Your task to perform on an android device: change notifications settings Image 0: 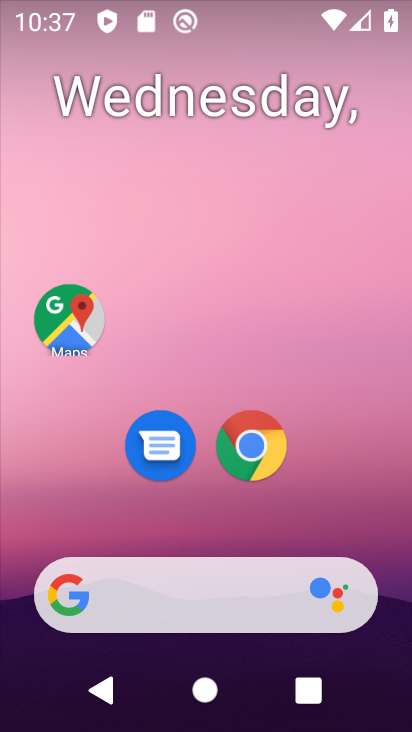
Step 0: drag from (181, 472) to (270, 0)
Your task to perform on an android device: change notifications settings Image 1: 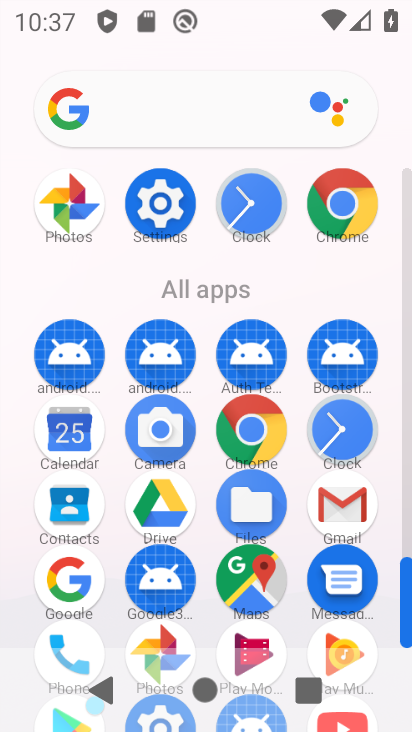
Step 1: click (177, 202)
Your task to perform on an android device: change notifications settings Image 2: 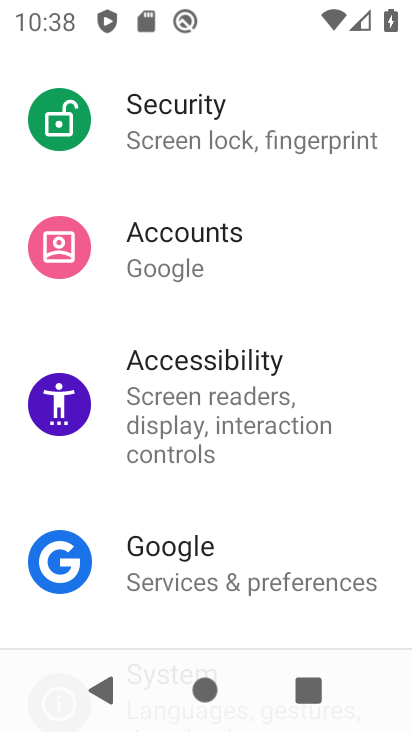
Step 2: drag from (206, 539) to (311, 124)
Your task to perform on an android device: change notifications settings Image 3: 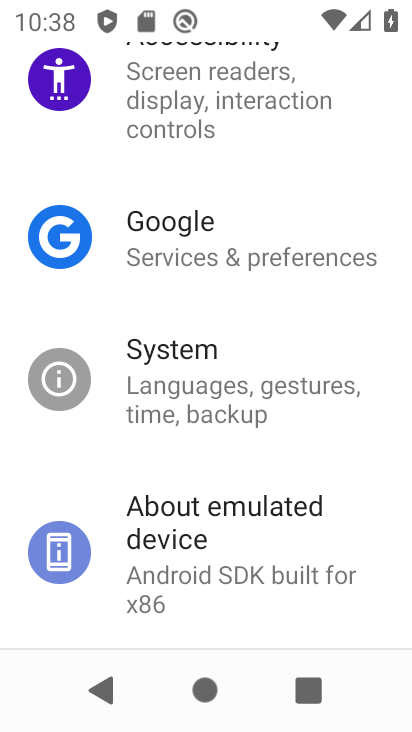
Step 3: drag from (276, 262) to (212, 723)
Your task to perform on an android device: change notifications settings Image 4: 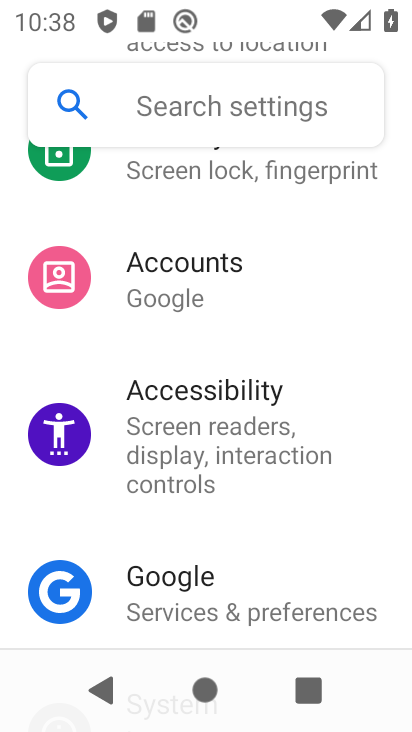
Step 4: drag from (211, 272) to (199, 710)
Your task to perform on an android device: change notifications settings Image 5: 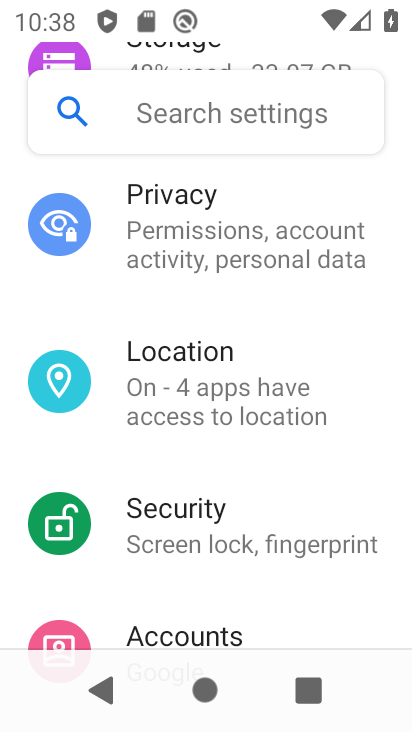
Step 5: drag from (254, 218) to (213, 725)
Your task to perform on an android device: change notifications settings Image 6: 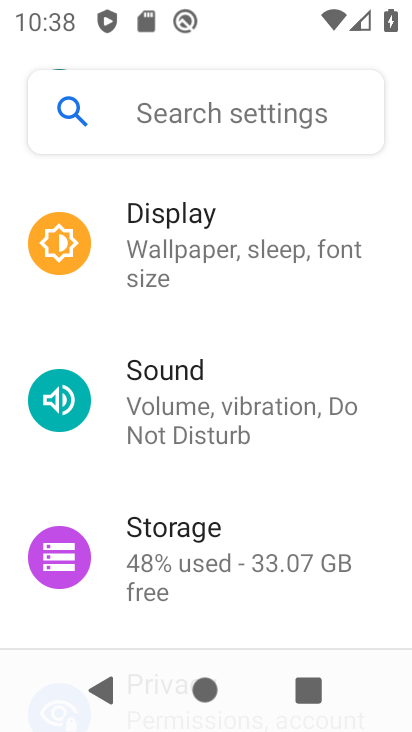
Step 6: drag from (252, 248) to (191, 724)
Your task to perform on an android device: change notifications settings Image 7: 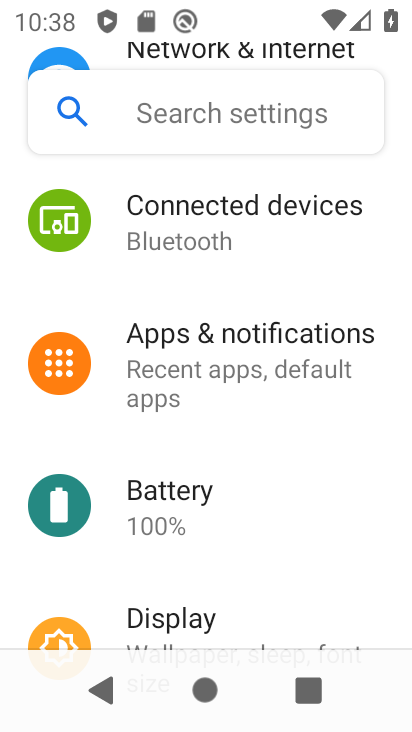
Step 7: click (256, 348)
Your task to perform on an android device: change notifications settings Image 8: 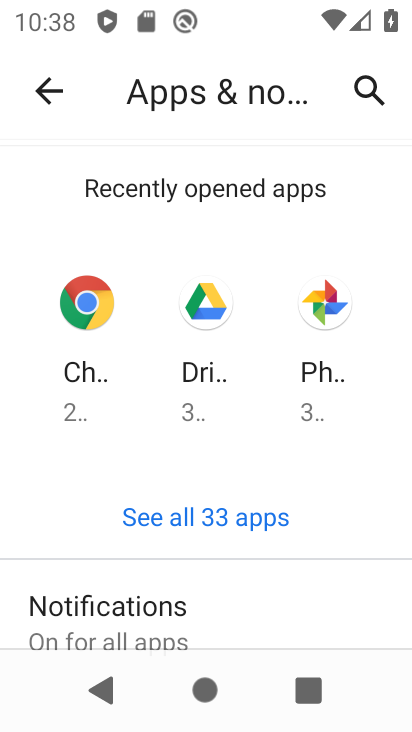
Step 8: click (181, 609)
Your task to perform on an android device: change notifications settings Image 9: 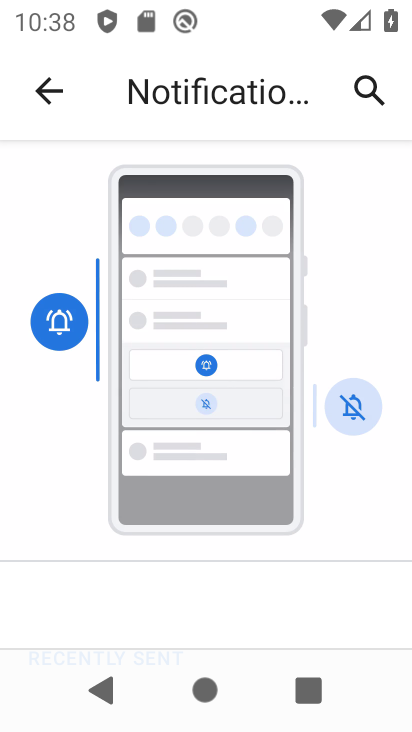
Step 9: click (64, 86)
Your task to perform on an android device: change notifications settings Image 10: 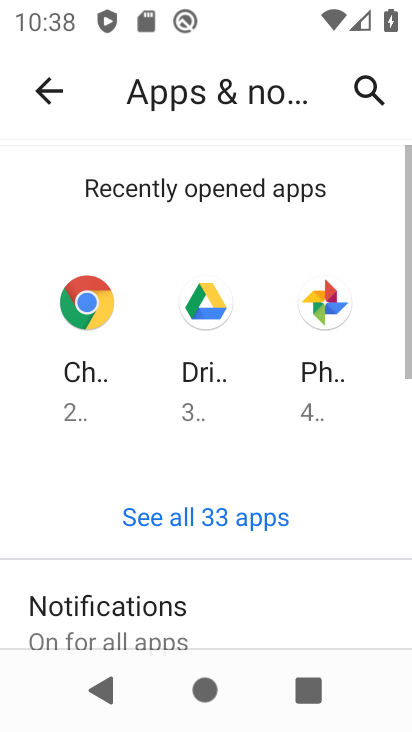
Step 10: click (89, 625)
Your task to perform on an android device: change notifications settings Image 11: 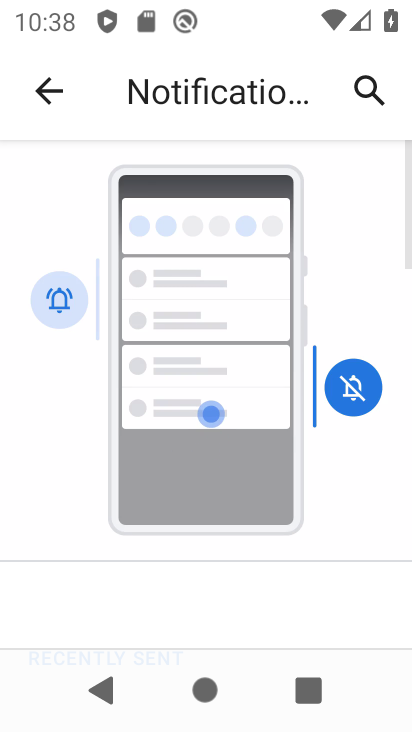
Step 11: drag from (162, 586) to (300, 17)
Your task to perform on an android device: change notifications settings Image 12: 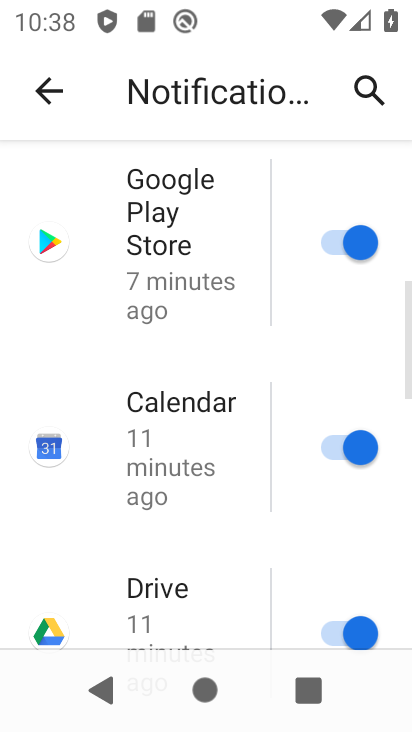
Step 12: drag from (237, 532) to (243, 73)
Your task to perform on an android device: change notifications settings Image 13: 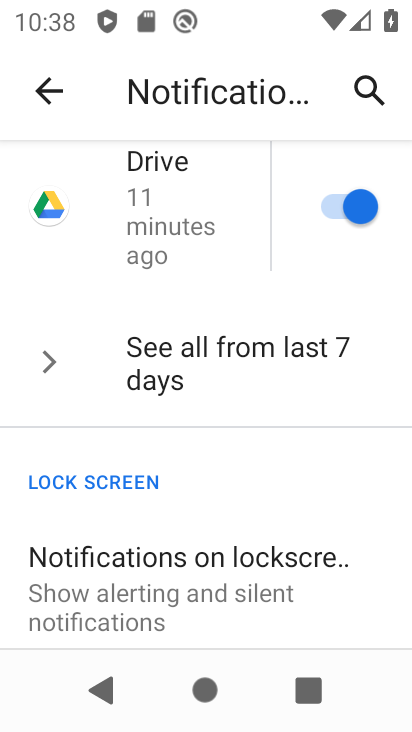
Step 13: drag from (257, 582) to (305, 88)
Your task to perform on an android device: change notifications settings Image 14: 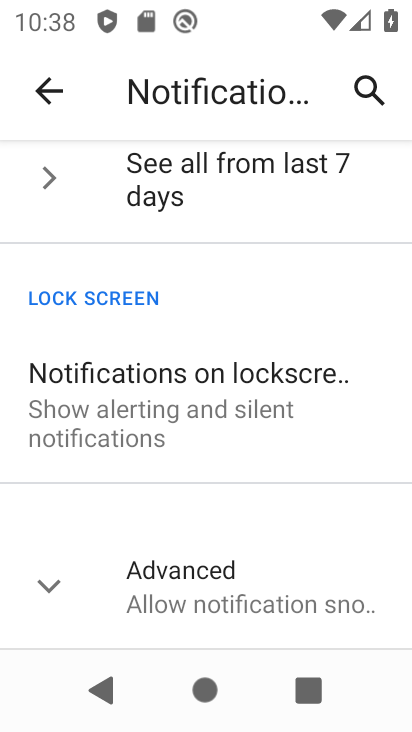
Step 14: click (240, 579)
Your task to perform on an android device: change notifications settings Image 15: 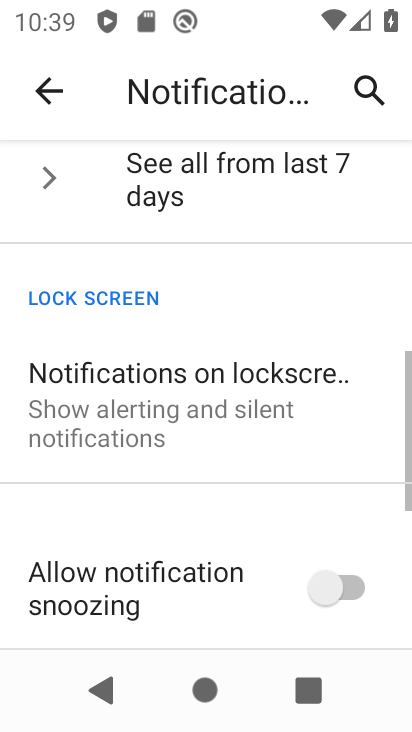
Step 15: drag from (250, 578) to (274, 198)
Your task to perform on an android device: change notifications settings Image 16: 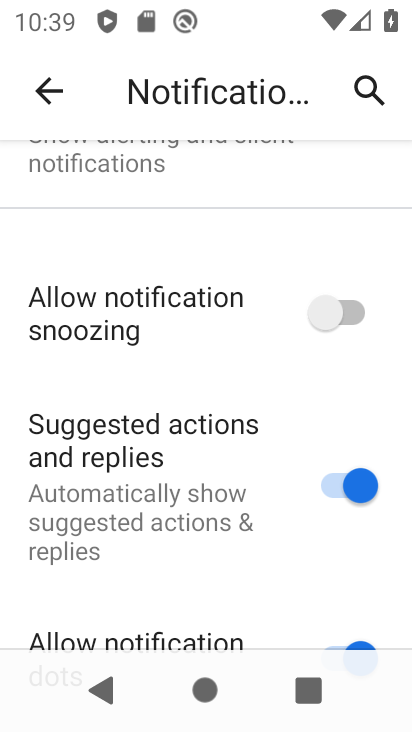
Step 16: click (332, 308)
Your task to perform on an android device: change notifications settings Image 17: 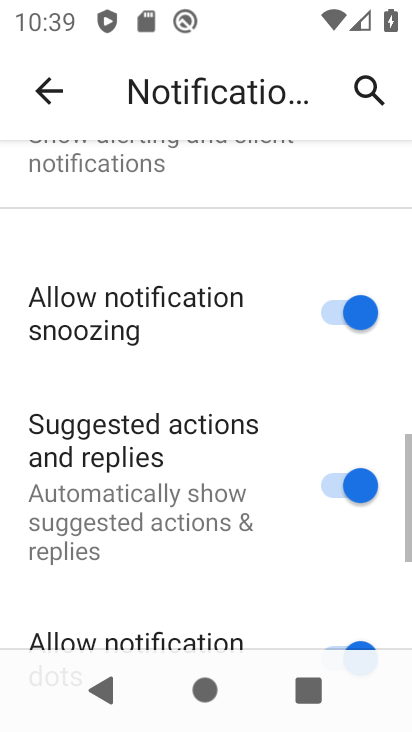
Step 17: task complete